Your task to perform on an android device: install app "Adobe Acrobat Reader: Edit PDF" Image 0: 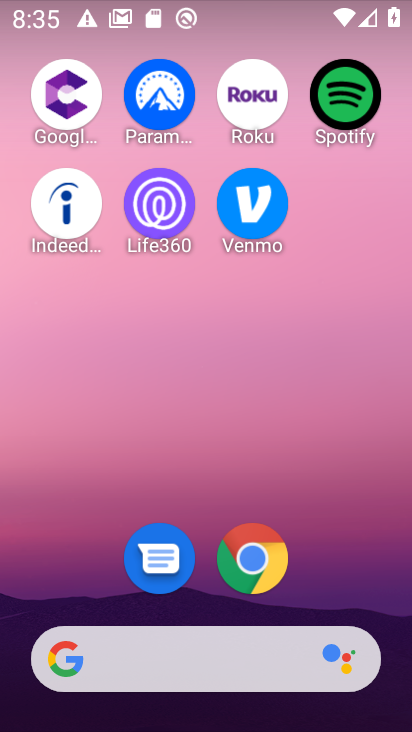
Step 0: drag from (257, 658) to (265, 237)
Your task to perform on an android device: install app "Adobe Acrobat Reader: Edit PDF" Image 1: 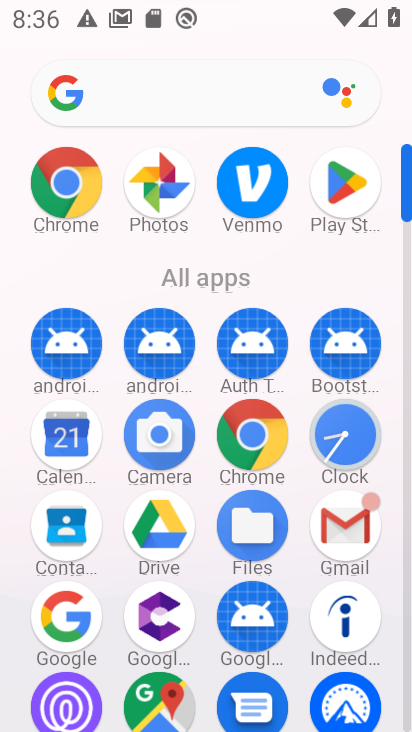
Step 1: click (327, 202)
Your task to perform on an android device: install app "Adobe Acrobat Reader: Edit PDF" Image 2: 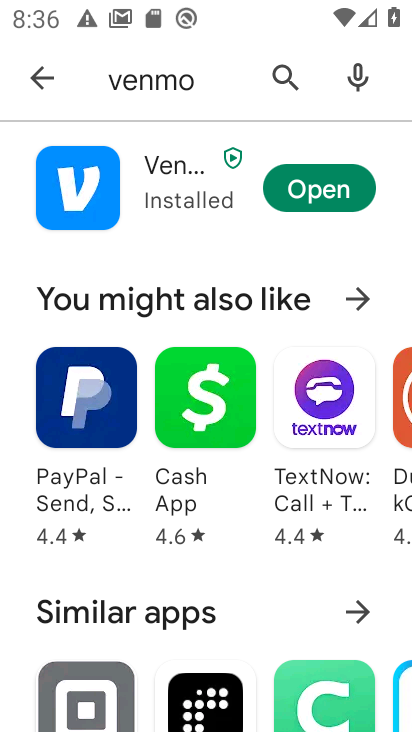
Step 2: click (281, 91)
Your task to perform on an android device: install app "Adobe Acrobat Reader: Edit PDF" Image 3: 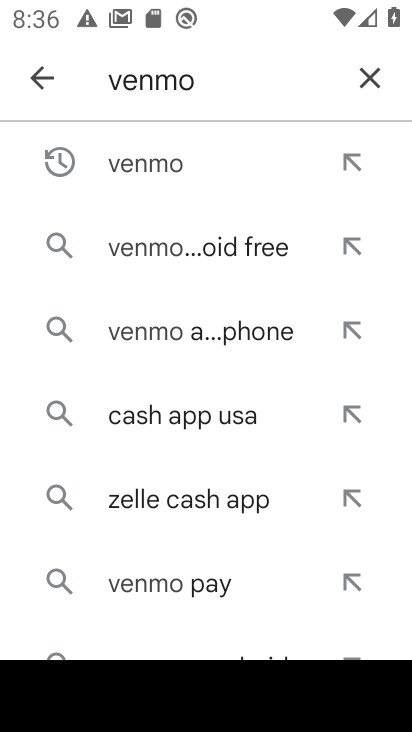
Step 3: click (378, 82)
Your task to perform on an android device: install app "Adobe Acrobat Reader: Edit PDF" Image 4: 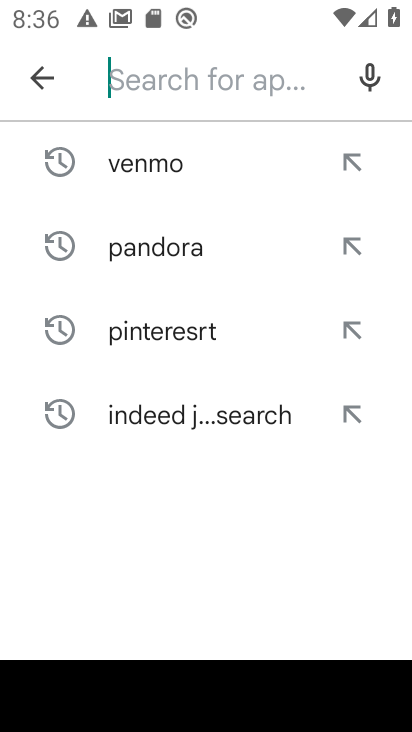
Step 4: type "adobe acrobat reader"
Your task to perform on an android device: install app "Adobe Acrobat Reader: Edit PDF" Image 5: 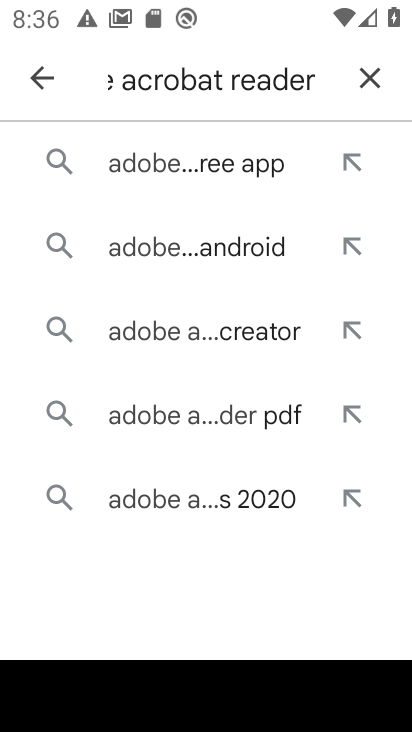
Step 5: click (189, 165)
Your task to perform on an android device: install app "Adobe Acrobat Reader: Edit PDF" Image 6: 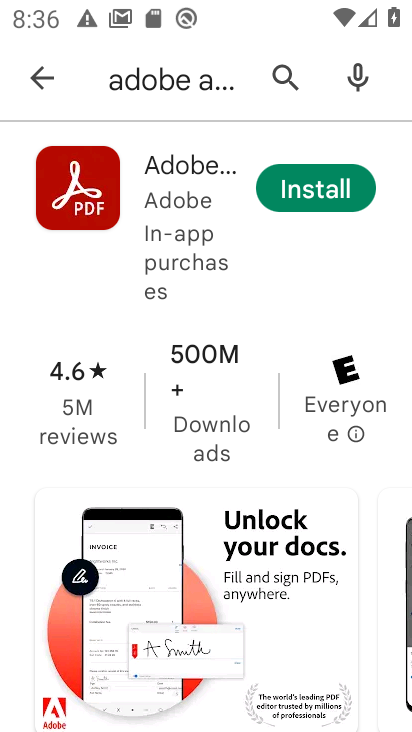
Step 6: click (281, 190)
Your task to perform on an android device: install app "Adobe Acrobat Reader: Edit PDF" Image 7: 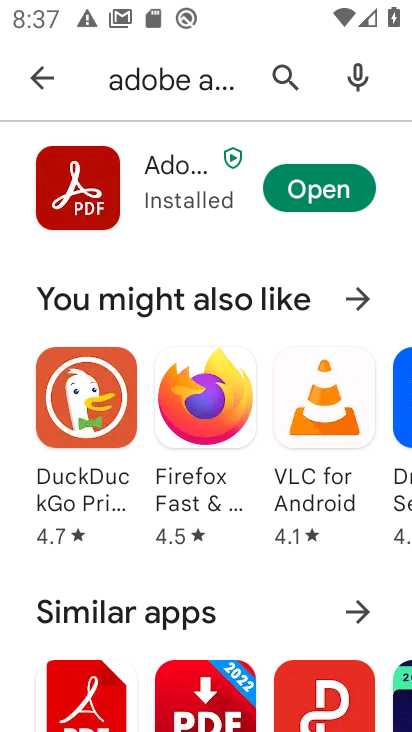
Step 7: task complete